Your task to perform on an android device: Search for seafood restaurants on Google Maps Image 0: 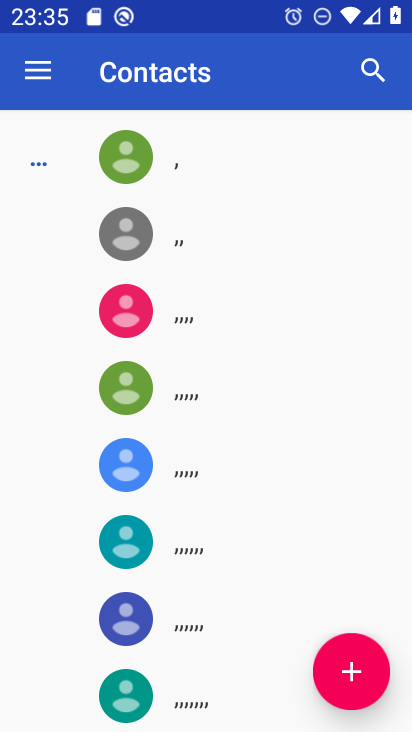
Step 0: press home button
Your task to perform on an android device: Search for seafood restaurants on Google Maps Image 1: 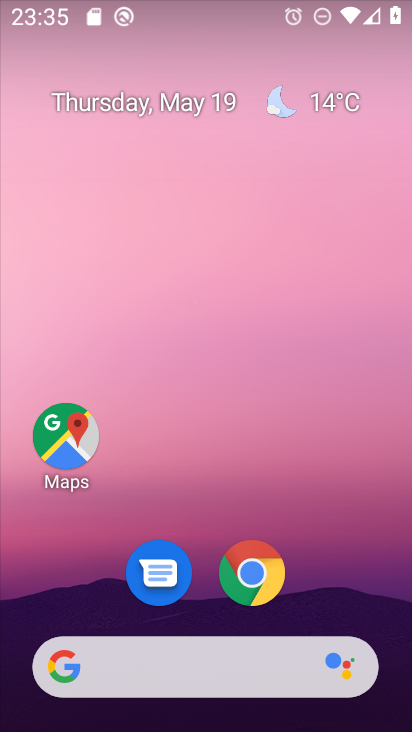
Step 1: click (73, 426)
Your task to perform on an android device: Search for seafood restaurants on Google Maps Image 2: 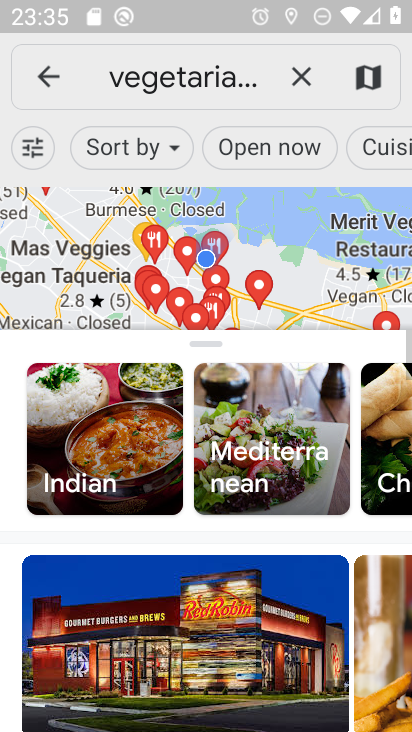
Step 2: click (242, 81)
Your task to perform on an android device: Search for seafood restaurants on Google Maps Image 3: 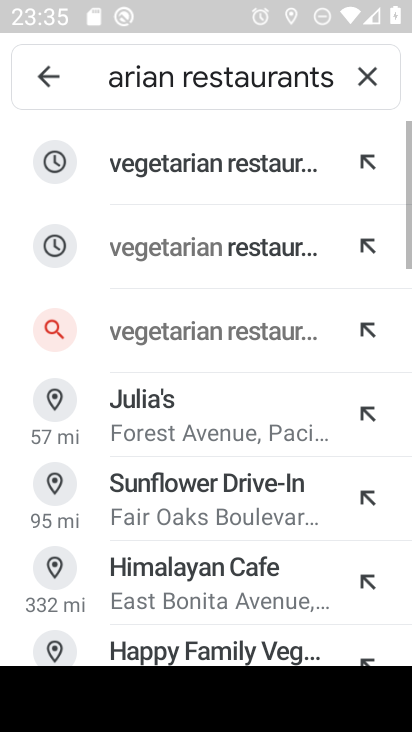
Step 3: click (375, 77)
Your task to perform on an android device: Search for seafood restaurants on Google Maps Image 4: 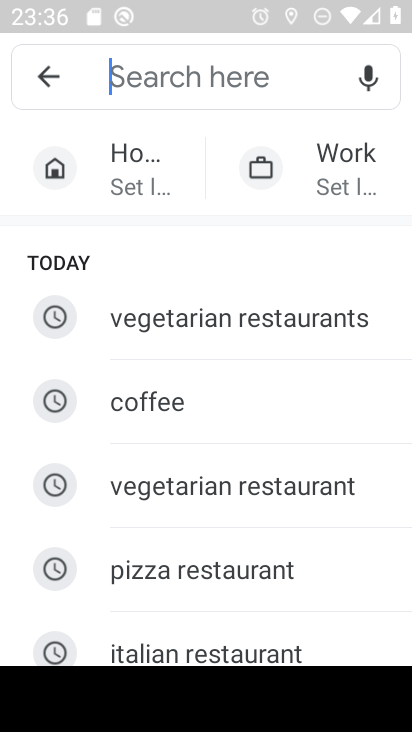
Step 4: type "seafood restaurants"
Your task to perform on an android device: Search for seafood restaurants on Google Maps Image 5: 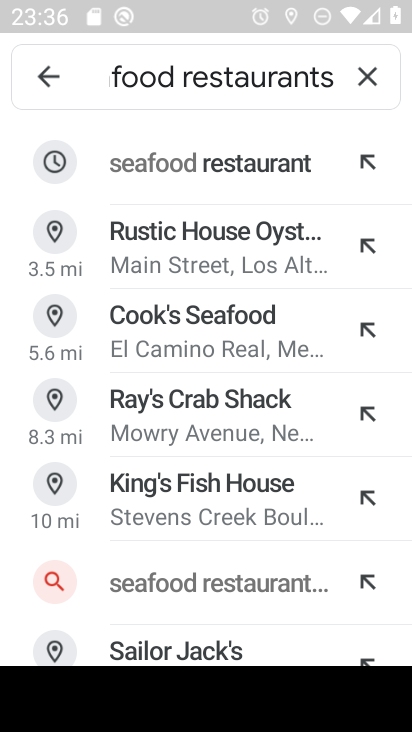
Step 5: press enter
Your task to perform on an android device: Search for seafood restaurants on Google Maps Image 6: 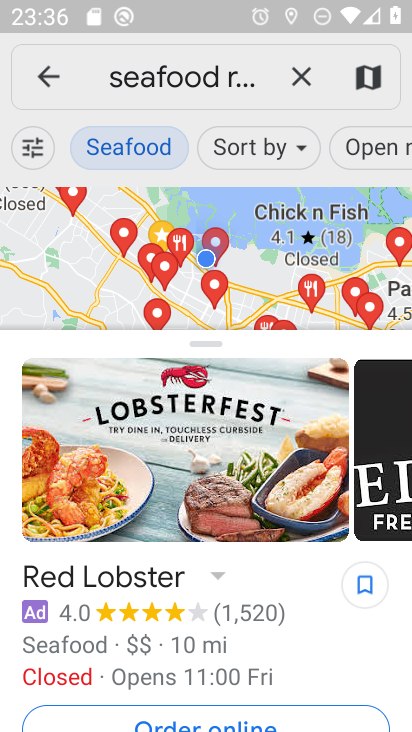
Step 6: task complete